Your task to perform on an android device: Open the calendar and show me this week's events? Image 0: 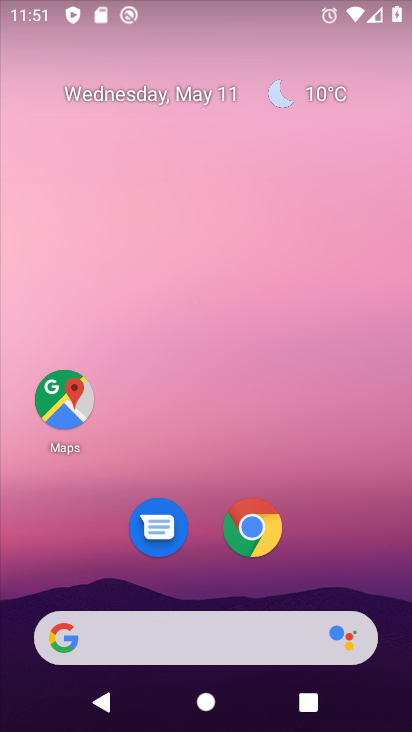
Step 0: drag from (194, 572) to (283, 0)
Your task to perform on an android device: Open the calendar and show me this week's events? Image 1: 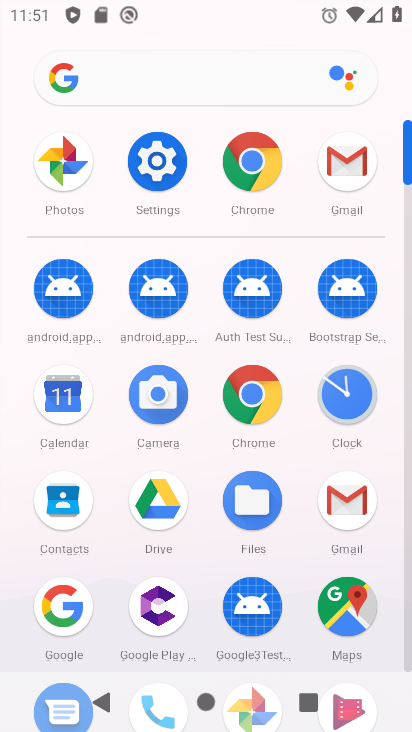
Step 1: click (64, 411)
Your task to perform on an android device: Open the calendar and show me this week's events? Image 2: 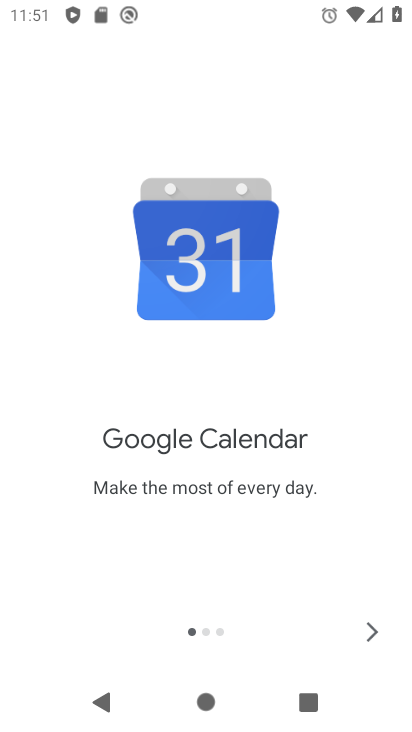
Step 2: click (378, 625)
Your task to perform on an android device: Open the calendar and show me this week's events? Image 3: 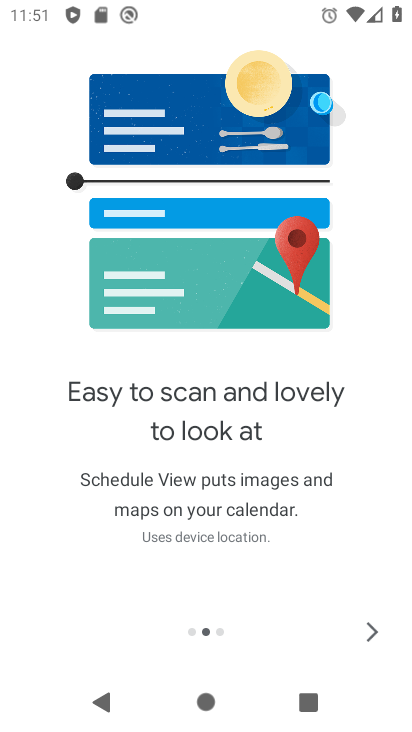
Step 3: click (373, 624)
Your task to perform on an android device: Open the calendar and show me this week's events? Image 4: 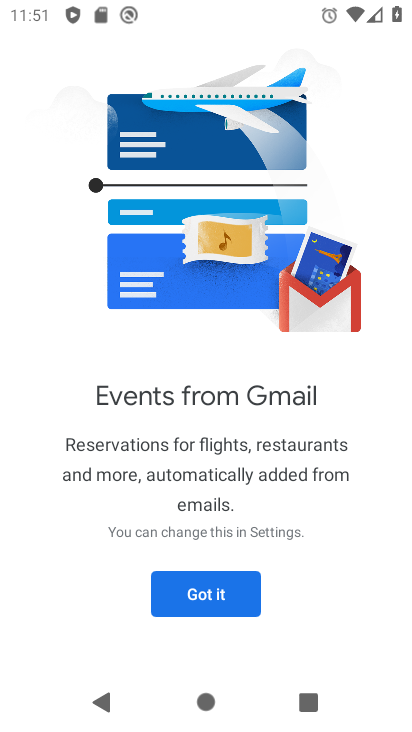
Step 4: click (223, 589)
Your task to perform on an android device: Open the calendar and show me this week's events? Image 5: 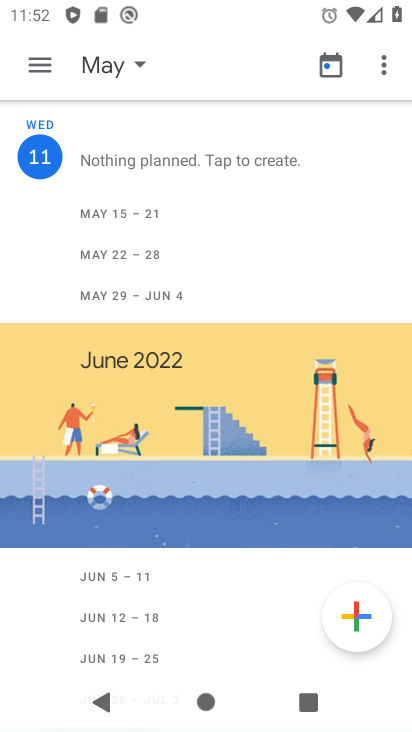
Step 5: click (41, 60)
Your task to perform on an android device: Open the calendar and show me this week's events? Image 6: 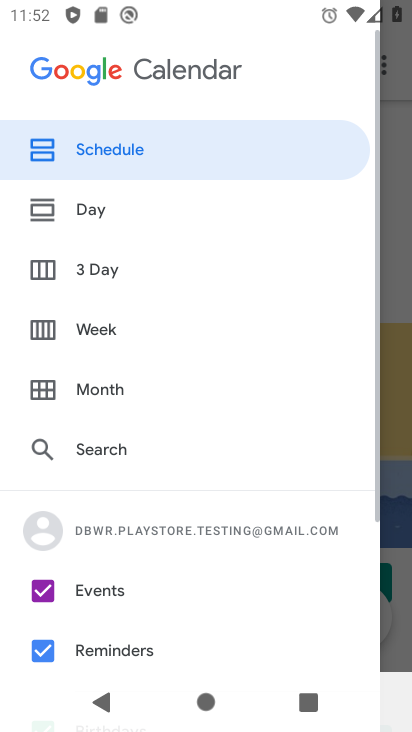
Step 6: drag from (113, 629) to (158, 299)
Your task to perform on an android device: Open the calendar and show me this week's events? Image 7: 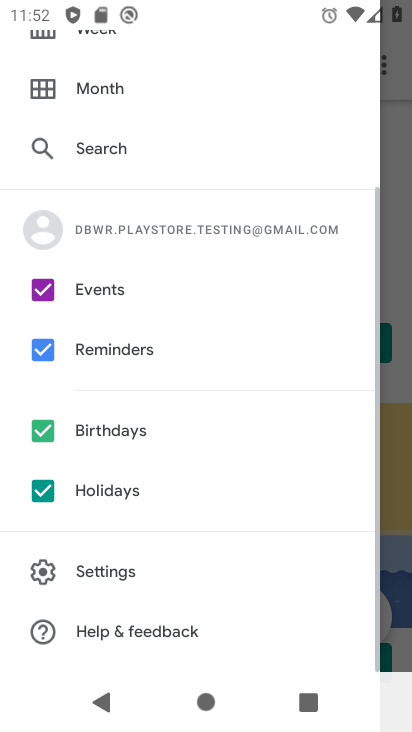
Step 7: click (56, 428)
Your task to perform on an android device: Open the calendar and show me this week's events? Image 8: 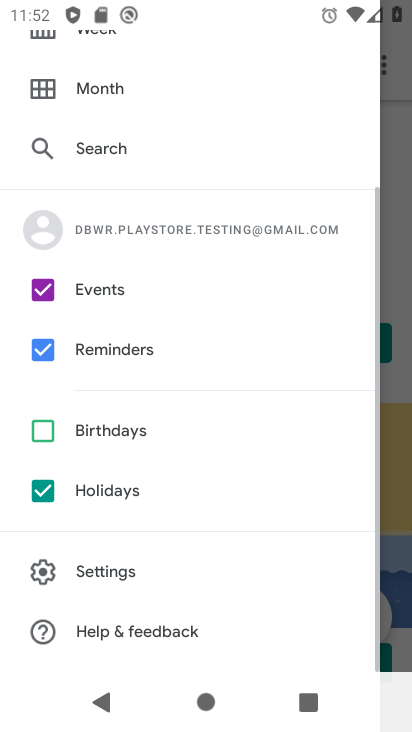
Step 8: click (68, 360)
Your task to perform on an android device: Open the calendar and show me this week's events? Image 9: 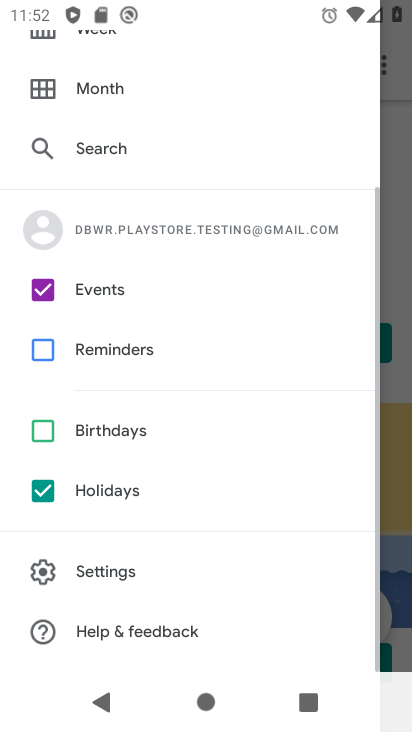
Step 9: click (57, 490)
Your task to perform on an android device: Open the calendar and show me this week's events? Image 10: 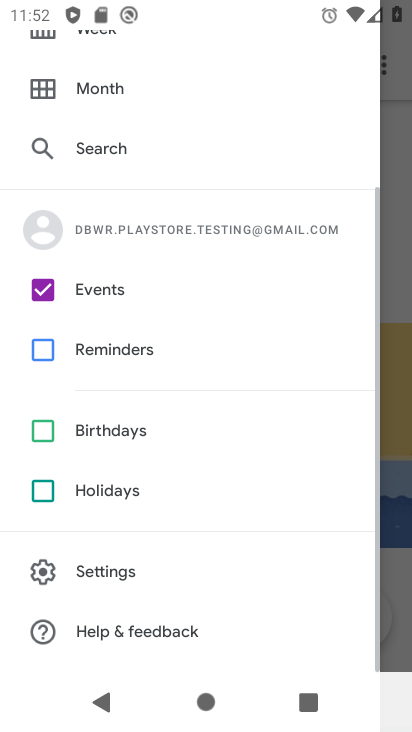
Step 10: drag from (195, 322) to (191, 674)
Your task to perform on an android device: Open the calendar and show me this week's events? Image 11: 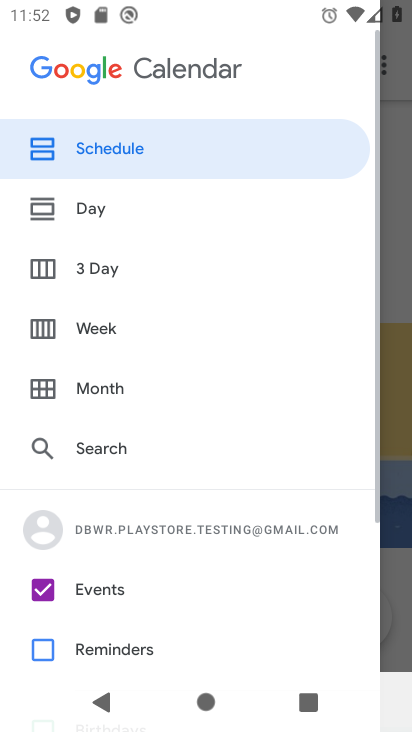
Step 11: click (105, 333)
Your task to perform on an android device: Open the calendar and show me this week's events? Image 12: 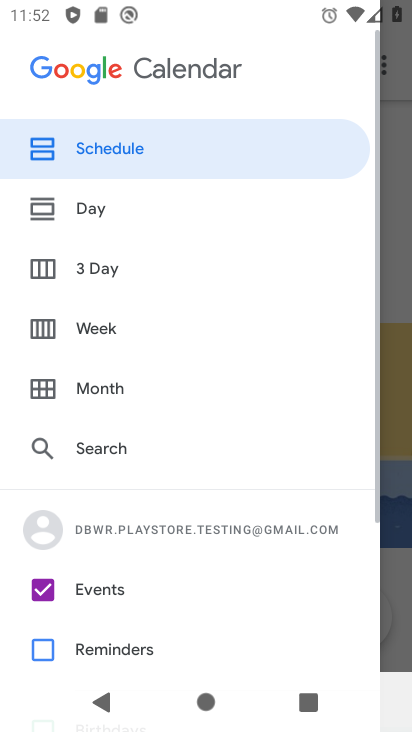
Step 12: click (94, 337)
Your task to perform on an android device: Open the calendar and show me this week's events? Image 13: 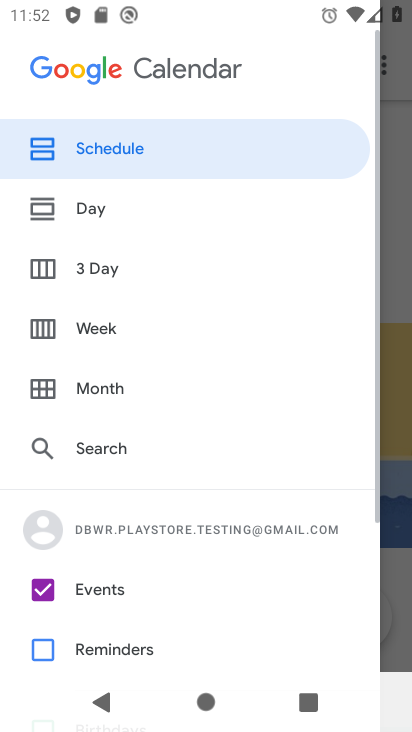
Step 13: click (94, 337)
Your task to perform on an android device: Open the calendar and show me this week's events? Image 14: 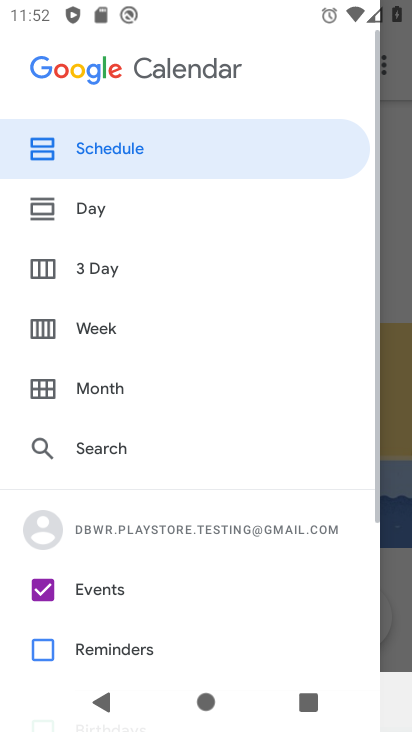
Step 14: click (94, 337)
Your task to perform on an android device: Open the calendar and show me this week's events? Image 15: 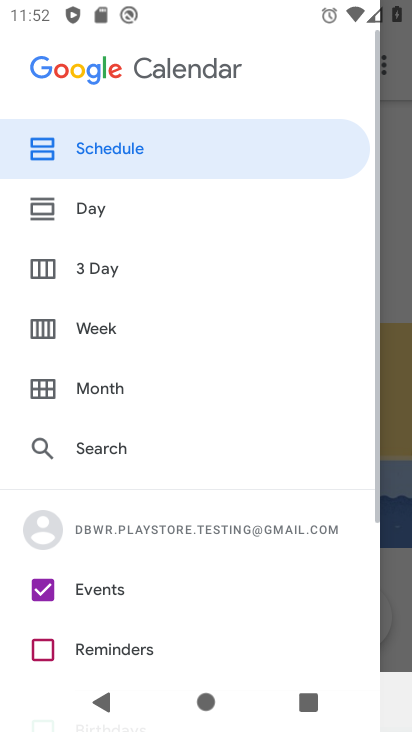
Step 15: click (93, 336)
Your task to perform on an android device: Open the calendar and show me this week's events? Image 16: 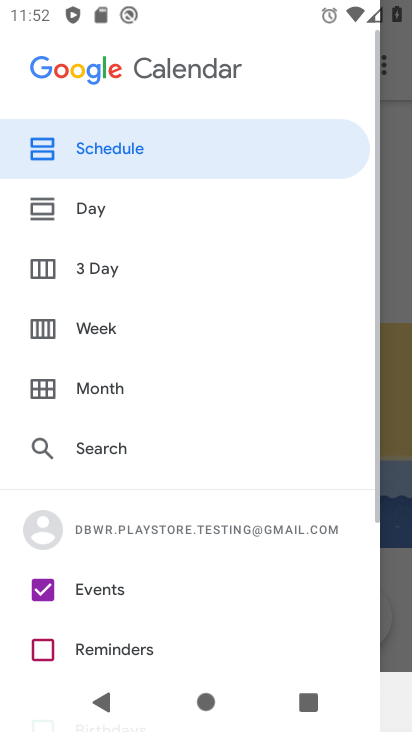
Step 16: click (104, 323)
Your task to perform on an android device: Open the calendar and show me this week's events? Image 17: 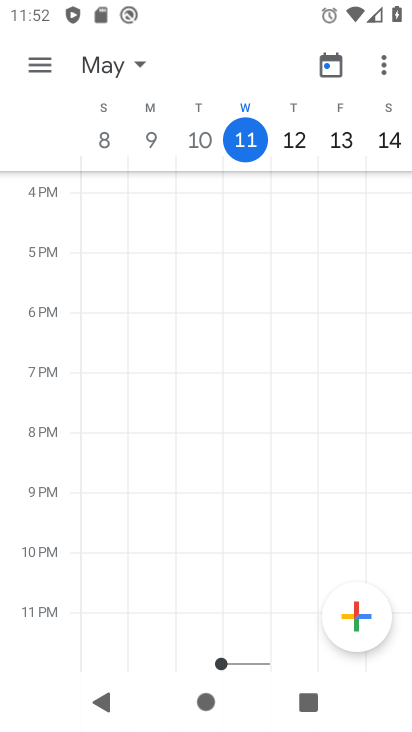
Step 17: task complete